Your task to perform on an android device: open app "Walmart Shopping & Grocery" (install if not already installed) and enter user name: "Hans@icloud.com" and password: "executing" Image 0: 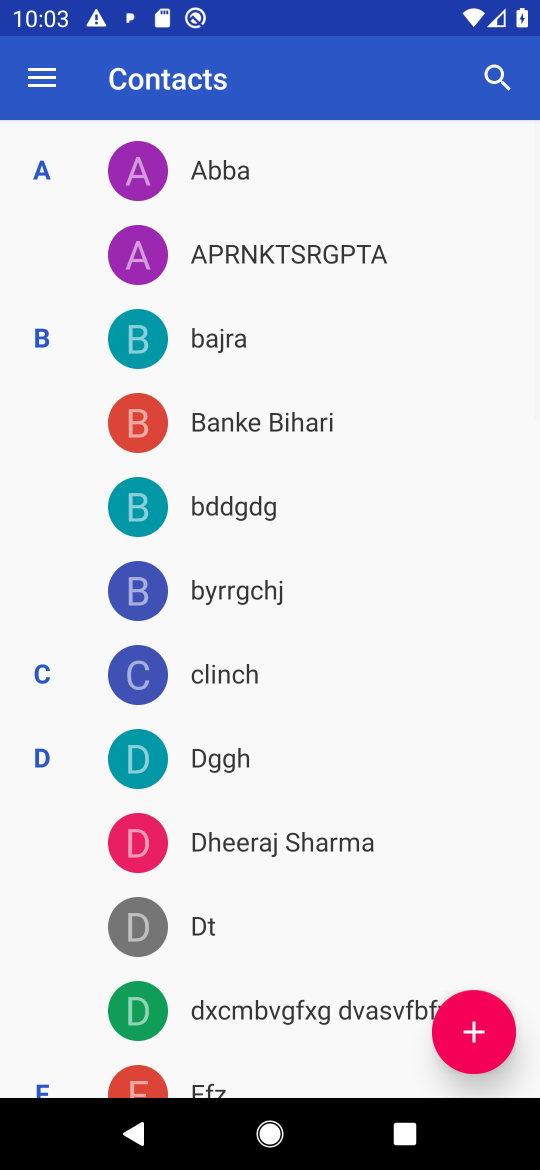
Step 0: press home button
Your task to perform on an android device: open app "Walmart Shopping & Grocery" (install if not already installed) and enter user name: "Hans@icloud.com" and password: "executing" Image 1: 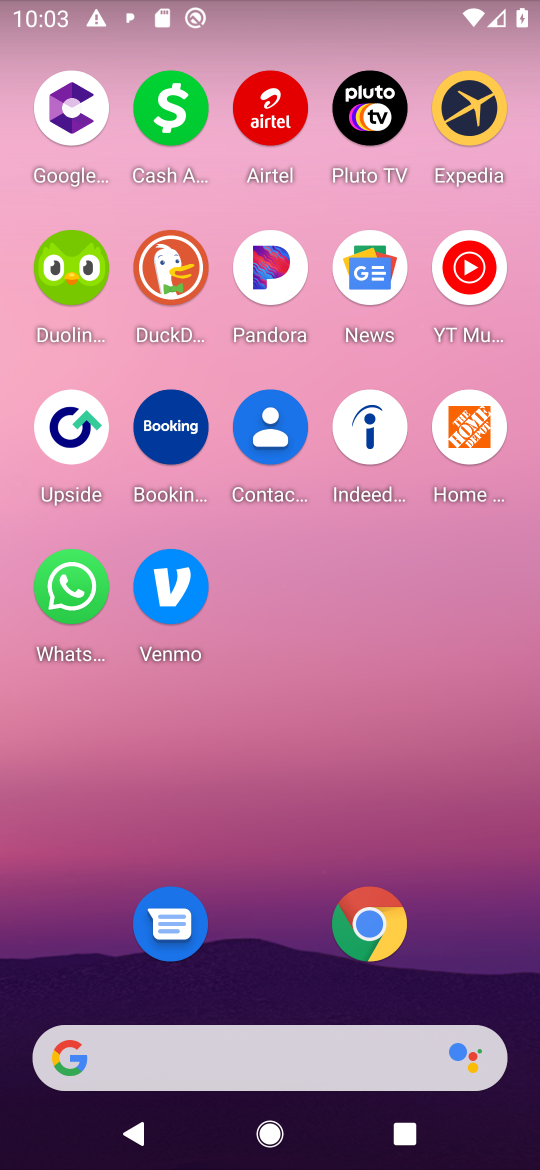
Step 1: drag from (457, 810) to (459, 60)
Your task to perform on an android device: open app "Walmart Shopping & Grocery" (install if not already installed) and enter user name: "Hans@icloud.com" and password: "executing" Image 2: 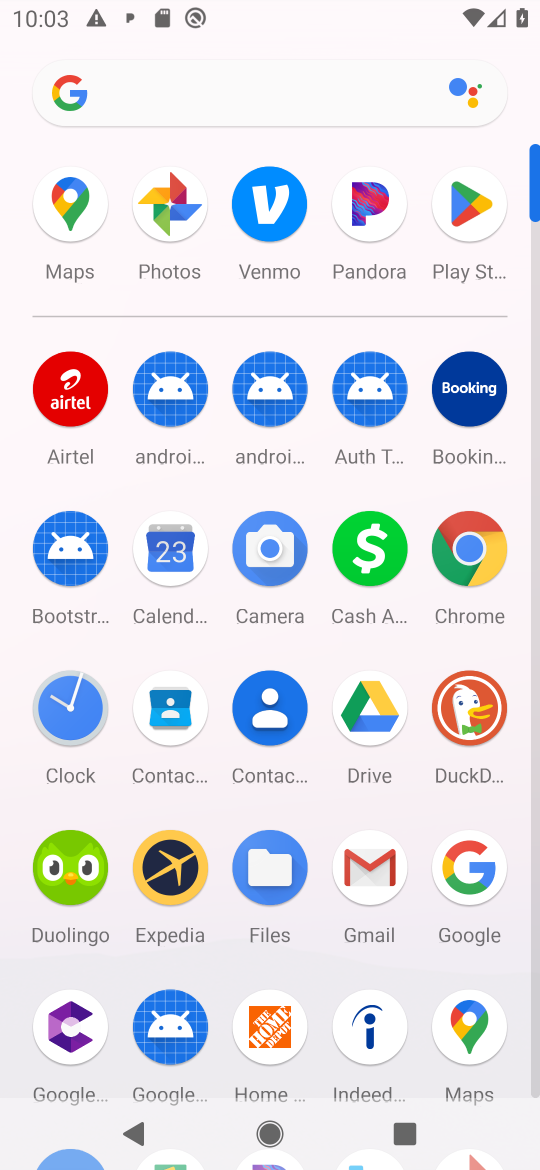
Step 2: click (479, 213)
Your task to perform on an android device: open app "Walmart Shopping & Grocery" (install if not already installed) and enter user name: "Hans@icloud.com" and password: "executing" Image 3: 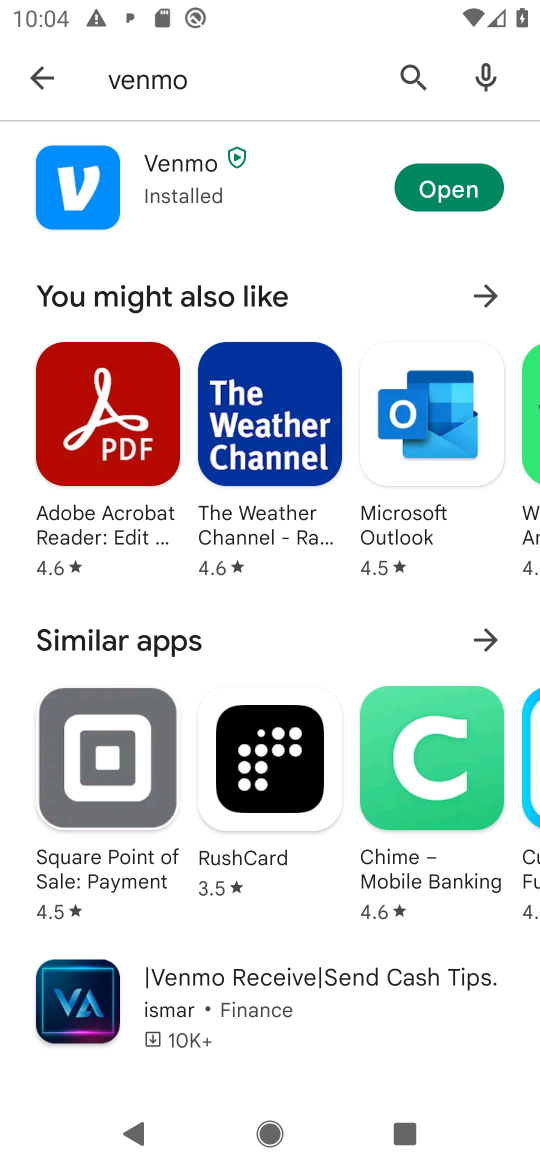
Step 3: press back button
Your task to perform on an android device: open app "Walmart Shopping & Grocery" (install if not already installed) and enter user name: "Hans@icloud.com" and password: "executing" Image 4: 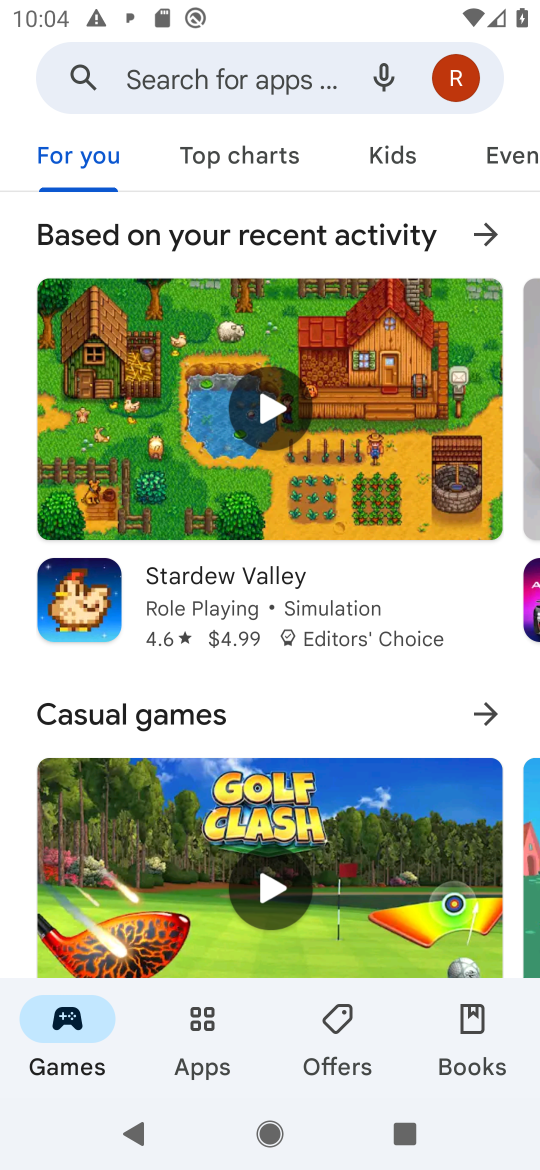
Step 4: click (237, 72)
Your task to perform on an android device: open app "Walmart Shopping & Grocery" (install if not already installed) and enter user name: "Hans@icloud.com" and password: "executing" Image 5: 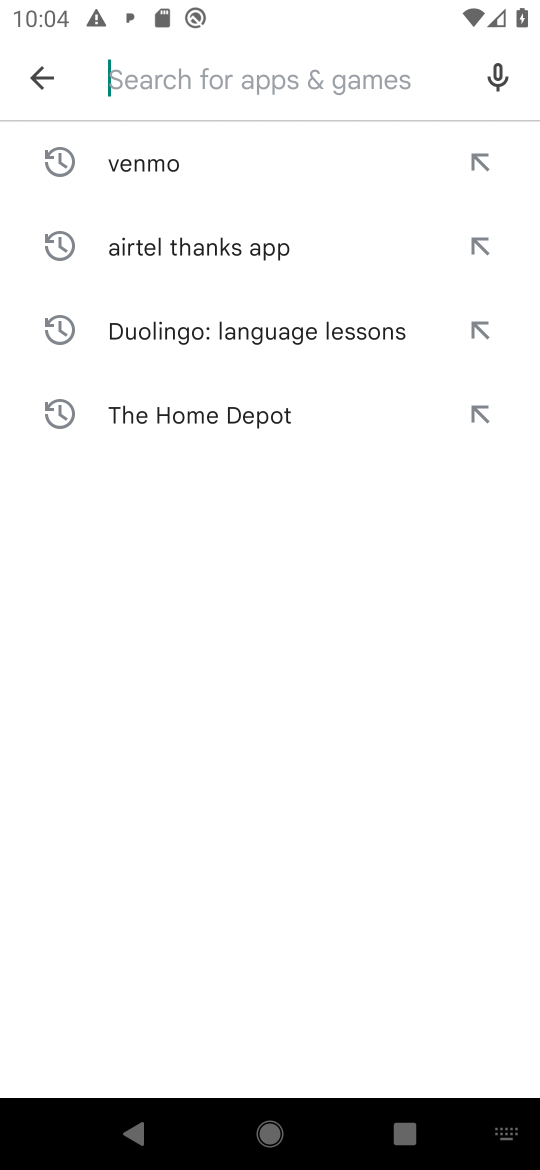
Step 5: type "Walmart Shopping & Grocery"
Your task to perform on an android device: open app "Walmart Shopping & Grocery" (install if not already installed) and enter user name: "Hans@icloud.com" and password: "executing" Image 6: 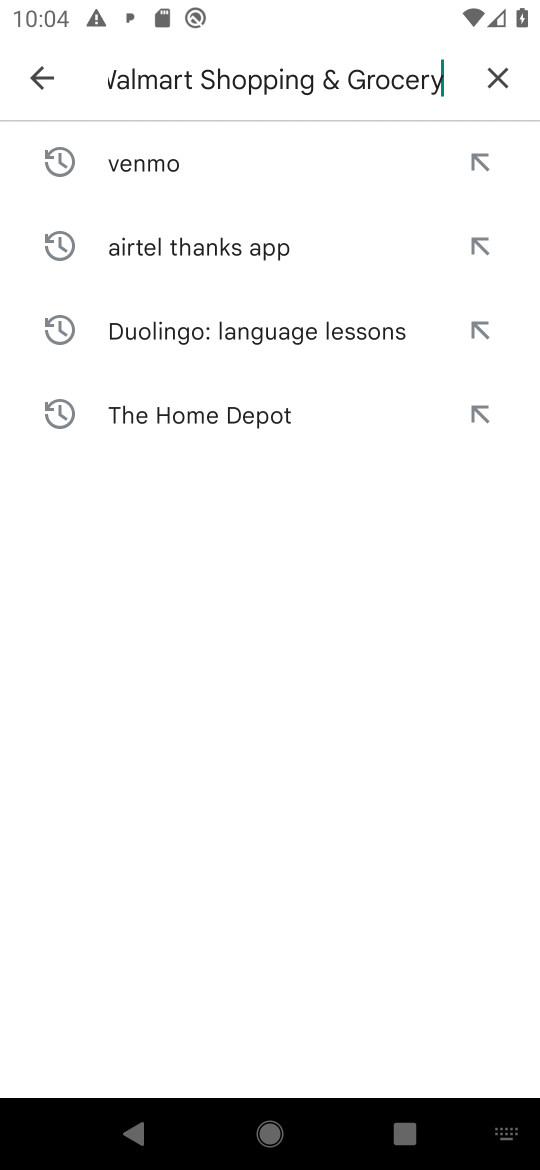
Step 6: press enter
Your task to perform on an android device: open app "Walmart Shopping & Grocery" (install if not already installed) and enter user name: "Hans@icloud.com" and password: "executing" Image 7: 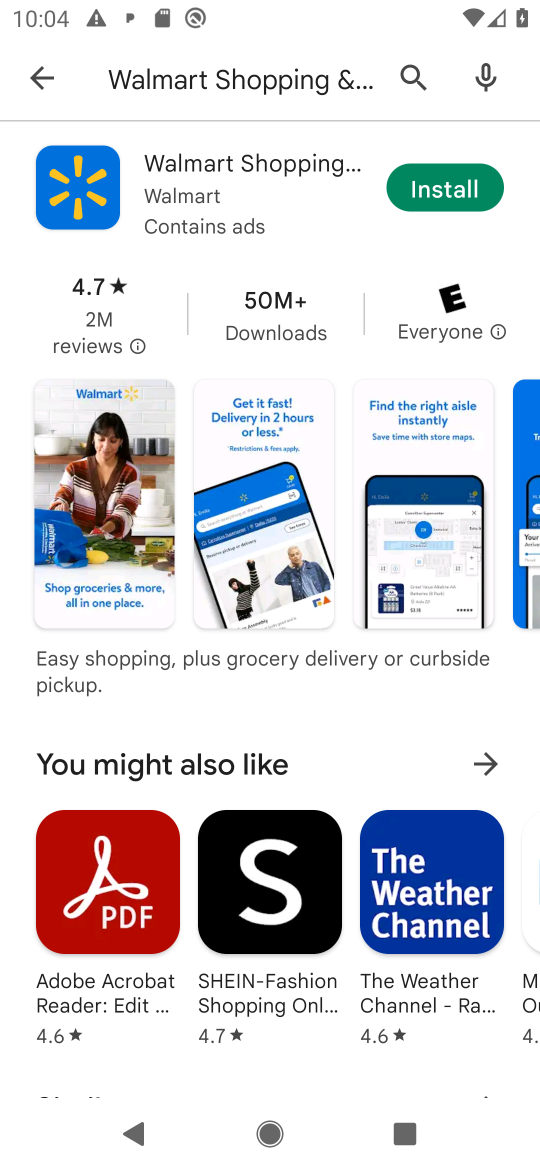
Step 7: click (441, 190)
Your task to perform on an android device: open app "Walmart Shopping & Grocery" (install if not already installed) and enter user name: "Hans@icloud.com" and password: "executing" Image 8: 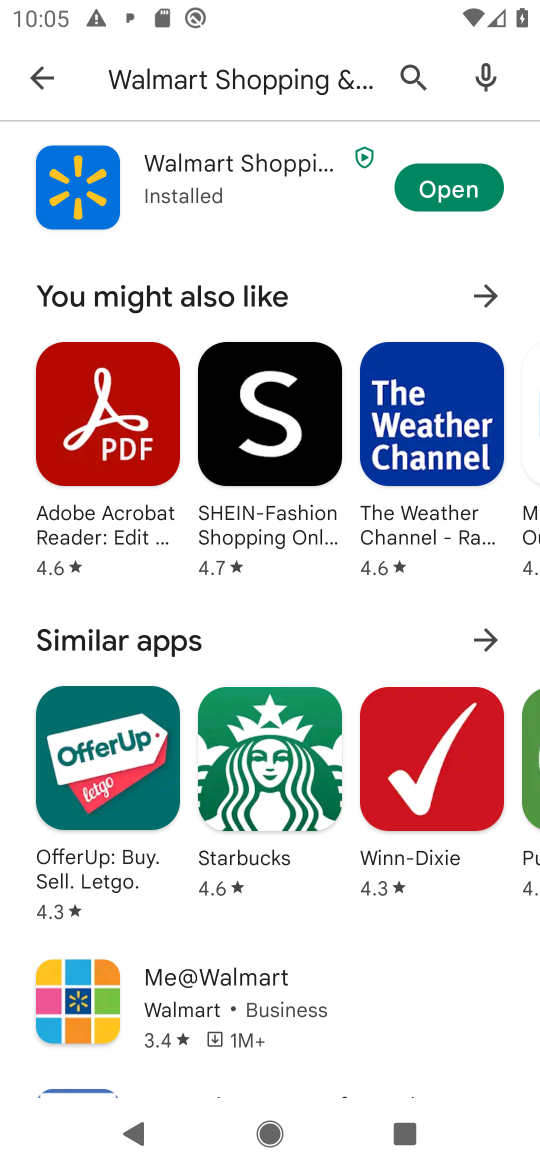
Step 8: click (450, 187)
Your task to perform on an android device: open app "Walmart Shopping & Grocery" (install if not already installed) and enter user name: "Hans@icloud.com" and password: "executing" Image 9: 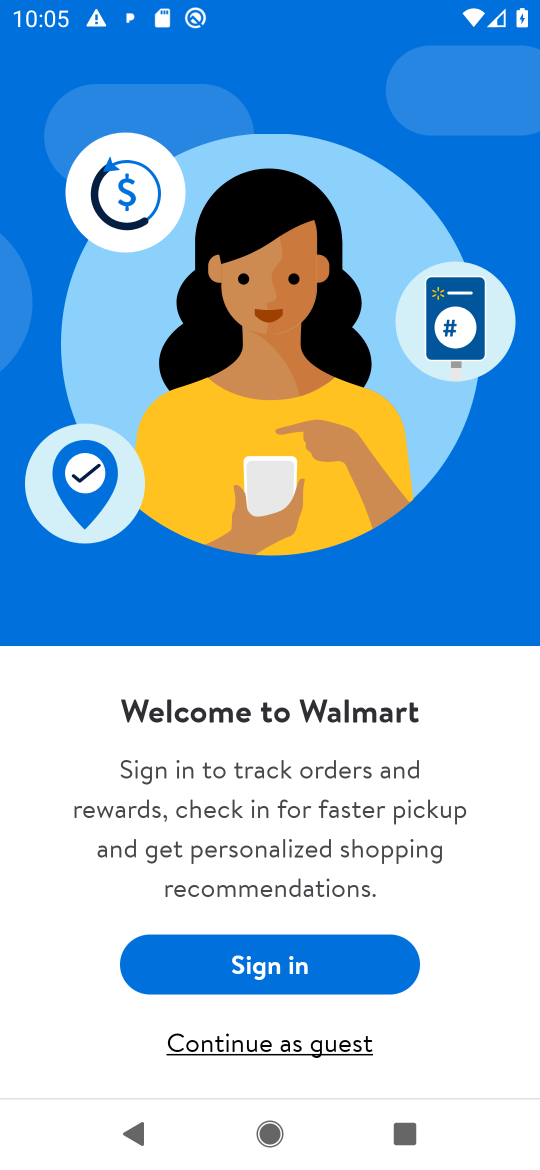
Step 9: click (295, 972)
Your task to perform on an android device: open app "Walmart Shopping & Grocery" (install if not already installed) and enter user name: "Hans@icloud.com" and password: "executing" Image 10: 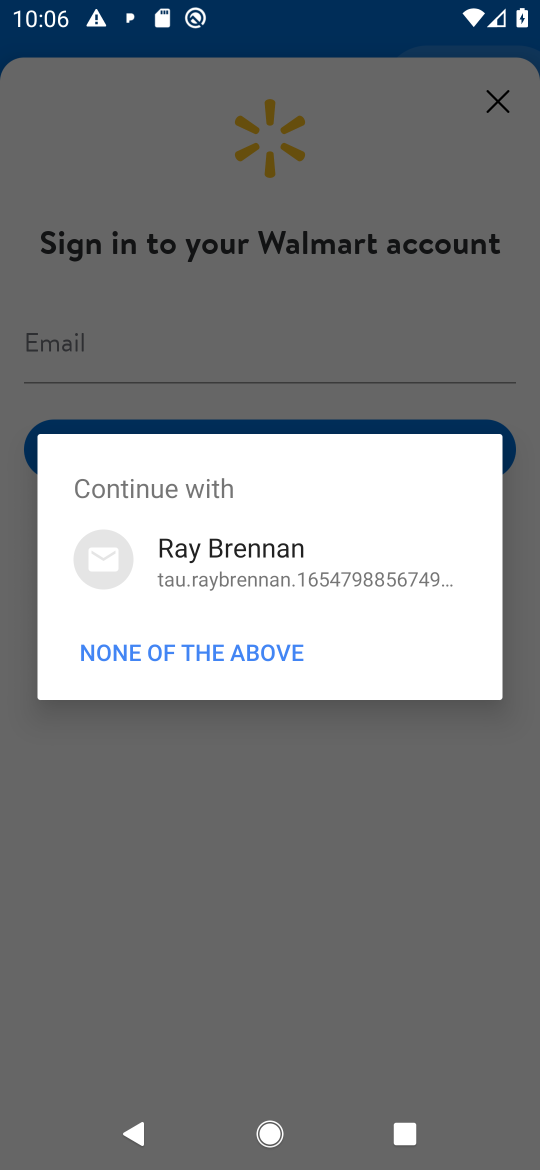
Step 10: click (200, 653)
Your task to perform on an android device: open app "Walmart Shopping & Grocery" (install if not already installed) and enter user name: "Hans@icloud.com" and password: "executing" Image 11: 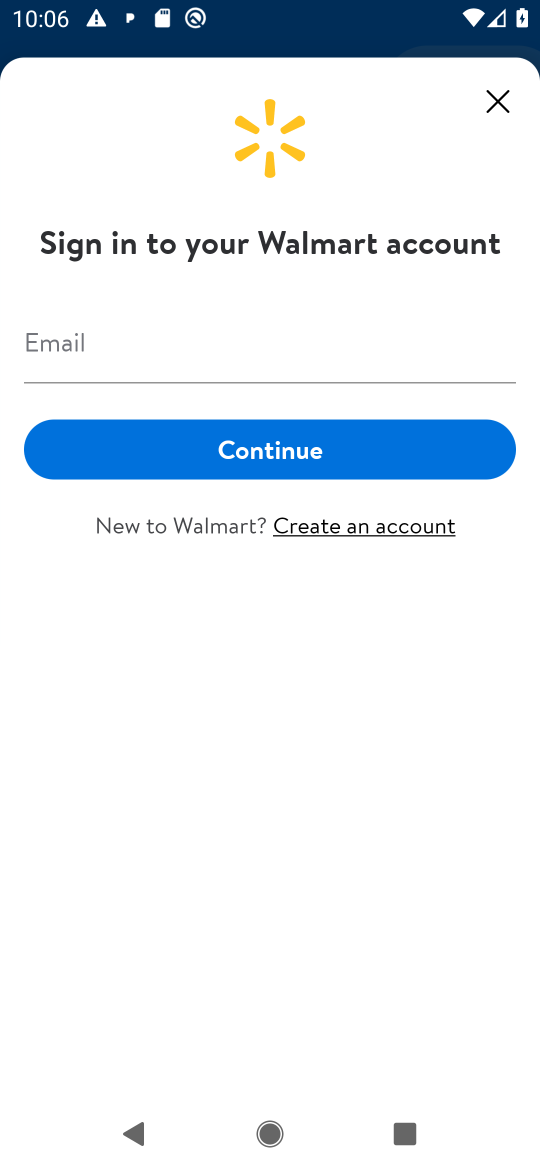
Step 11: click (96, 324)
Your task to perform on an android device: open app "Walmart Shopping & Grocery" (install if not already installed) and enter user name: "Hans@icloud.com" and password: "executing" Image 12: 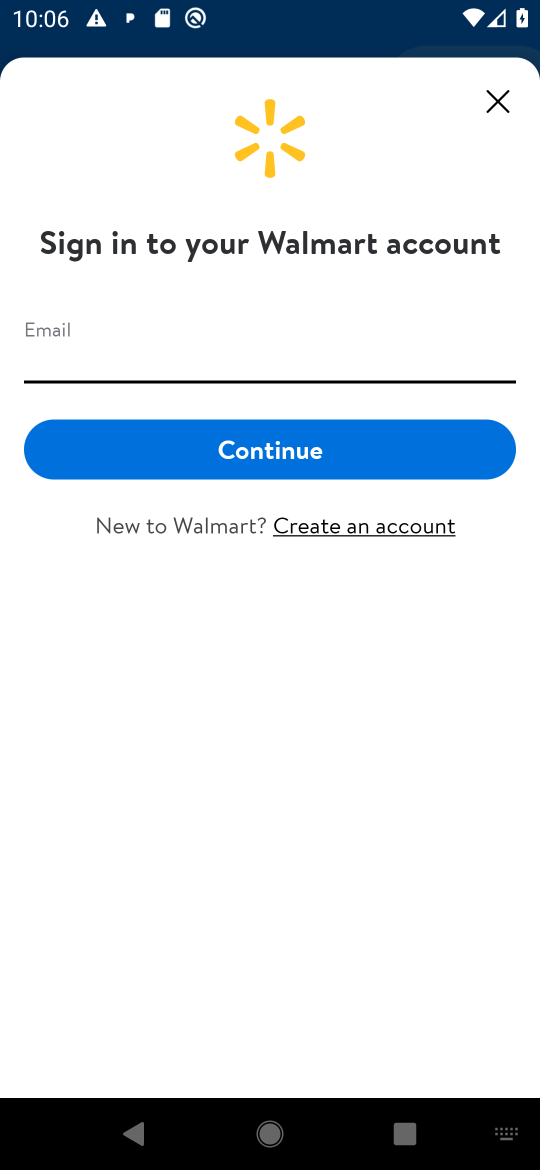
Step 12: type "Hans@icloud.com"
Your task to perform on an android device: open app "Walmart Shopping & Grocery" (install if not already installed) and enter user name: "Hans@icloud.com" and password: "executing" Image 13: 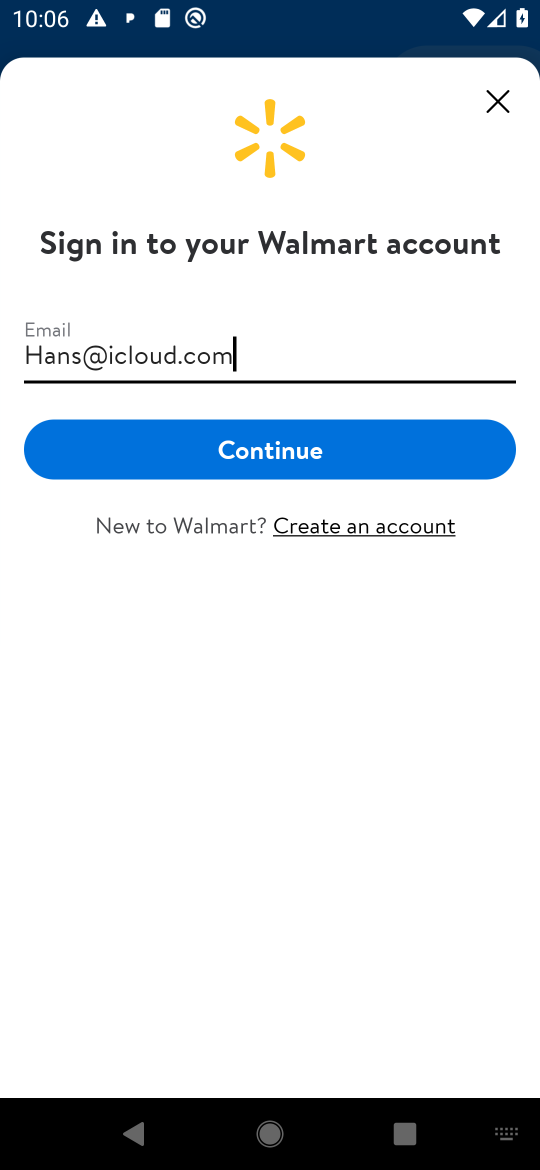
Step 13: press enter
Your task to perform on an android device: open app "Walmart Shopping & Grocery" (install if not already installed) and enter user name: "Hans@icloud.com" and password: "executing" Image 14: 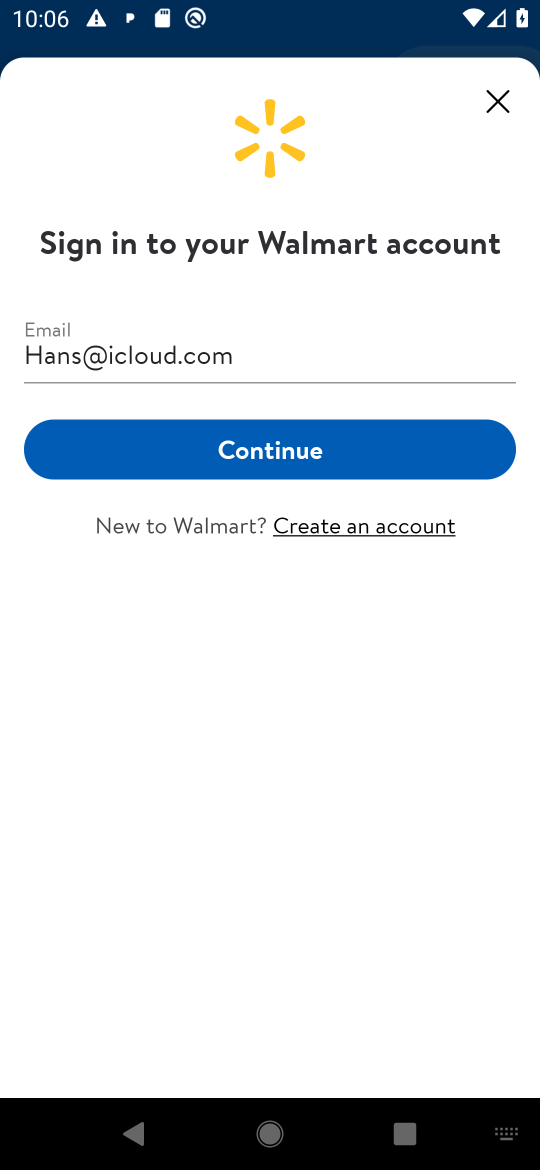
Step 14: click (370, 459)
Your task to perform on an android device: open app "Walmart Shopping & Grocery" (install if not already installed) and enter user name: "Hans@icloud.com" and password: "executing" Image 15: 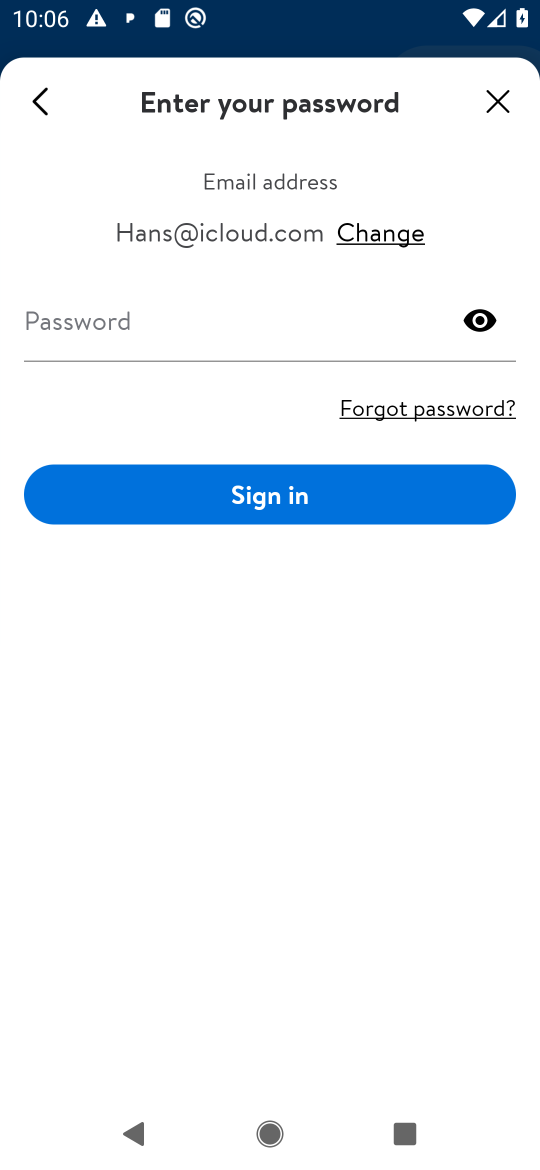
Step 15: click (155, 324)
Your task to perform on an android device: open app "Walmart Shopping & Grocery" (install if not already installed) and enter user name: "Hans@icloud.com" and password: "executing" Image 16: 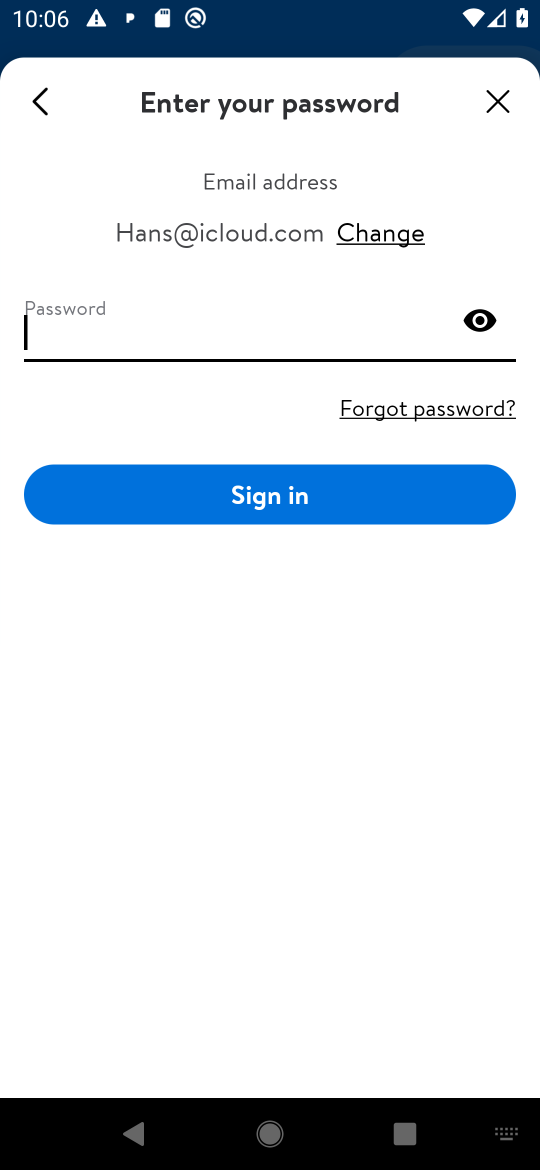
Step 16: press enter
Your task to perform on an android device: open app "Walmart Shopping & Grocery" (install if not already installed) and enter user name: "Hans@icloud.com" and password: "executing" Image 17: 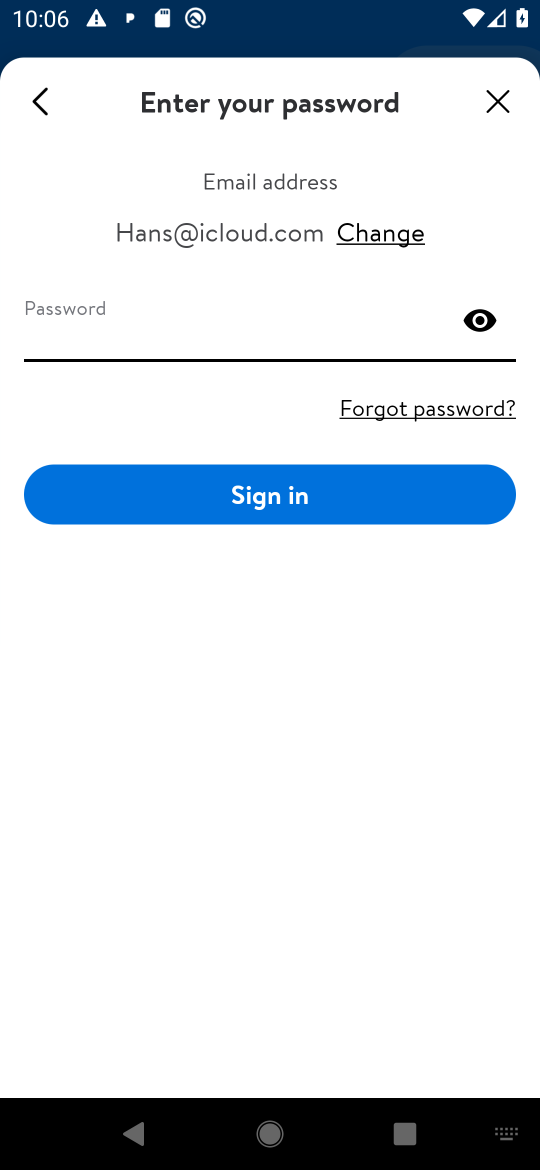
Step 17: type "executing"
Your task to perform on an android device: open app "Walmart Shopping & Grocery" (install if not already installed) and enter user name: "Hans@icloud.com" and password: "executing" Image 18: 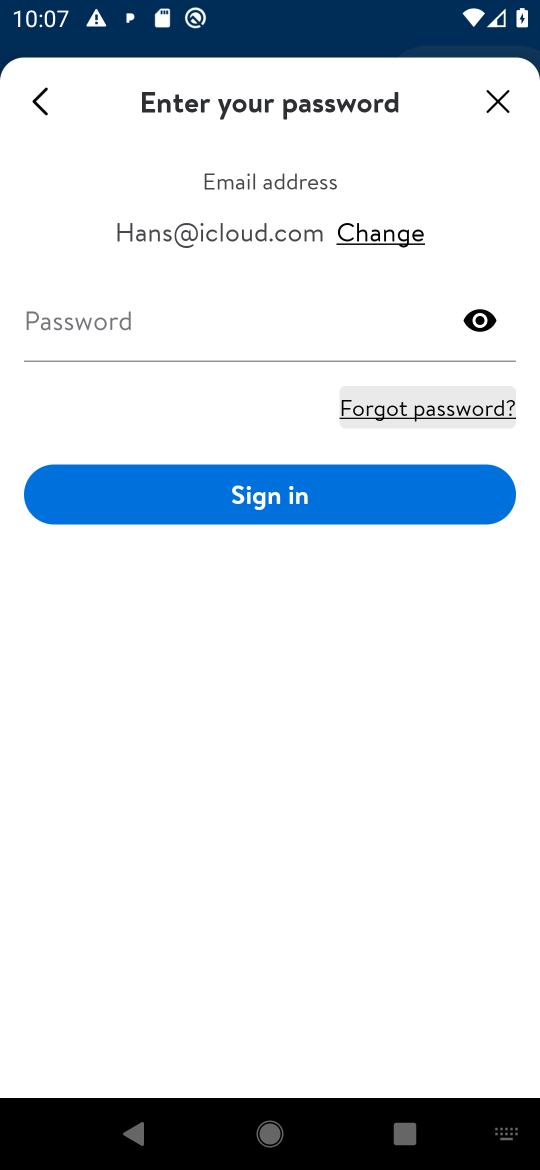
Step 18: click (157, 326)
Your task to perform on an android device: open app "Walmart Shopping & Grocery" (install if not already installed) and enter user name: "Hans@icloud.com" and password: "executing" Image 19: 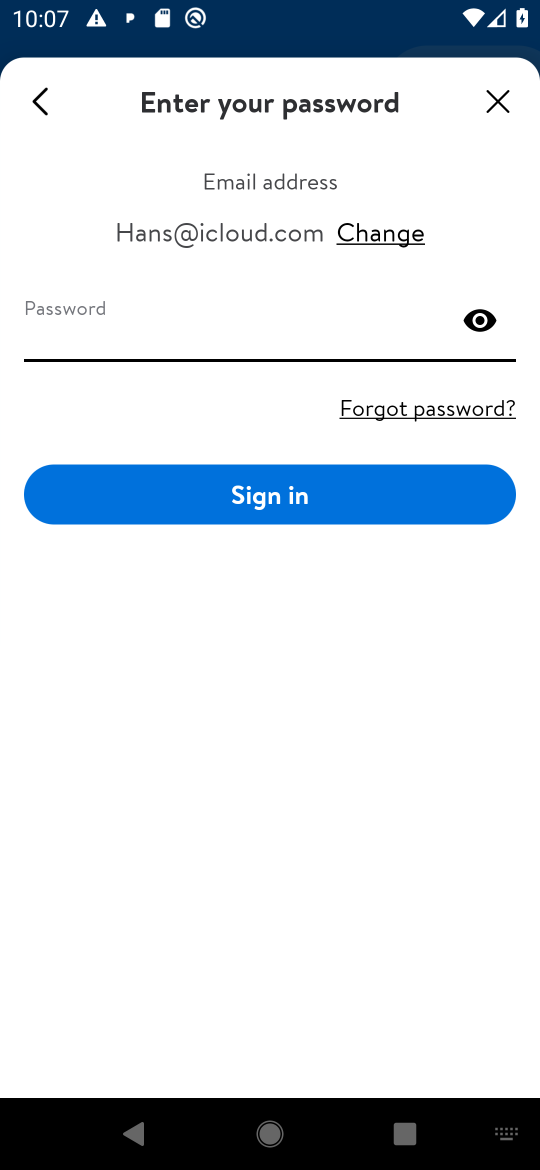
Step 19: type "executing"
Your task to perform on an android device: open app "Walmart Shopping & Grocery" (install if not already installed) and enter user name: "Hans@icloud.com" and password: "executing" Image 20: 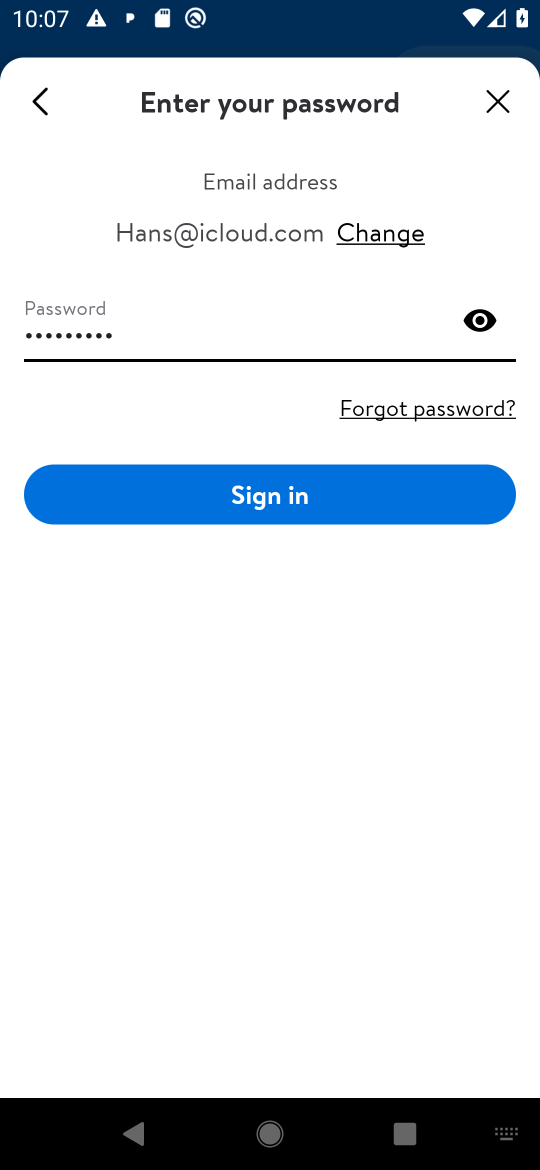
Step 20: task complete